Your task to perform on an android device: Open calendar and show me the second week of next month Image 0: 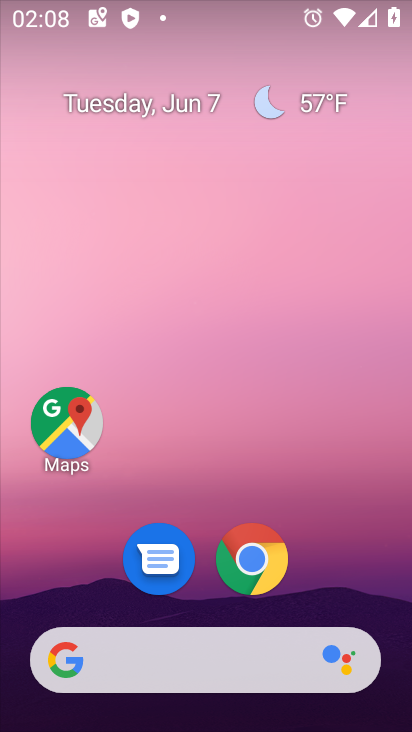
Step 0: drag from (352, 541) to (199, 78)
Your task to perform on an android device: Open calendar and show me the second week of next month Image 1: 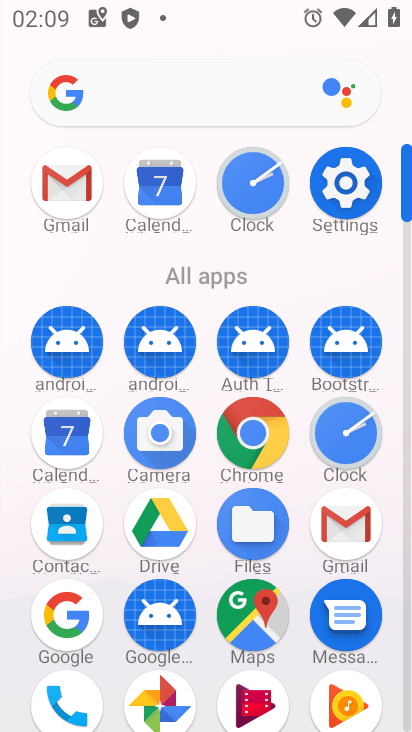
Step 1: click (69, 431)
Your task to perform on an android device: Open calendar and show me the second week of next month Image 2: 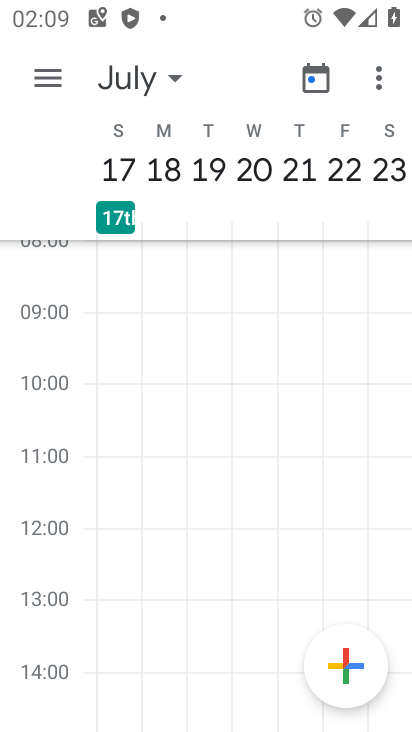
Step 2: click (321, 78)
Your task to perform on an android device: Open calendar and show me the second week of next month Image 3: 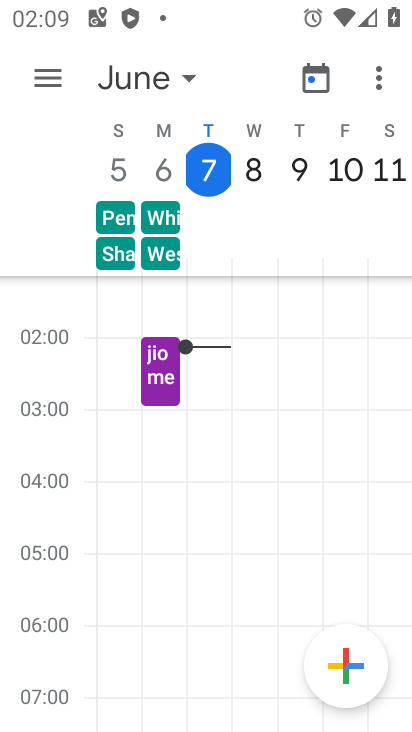
Step 3: click (190, 75)
Your task to perform on an android device: Open calendar and show me the second week of next month Image 4: 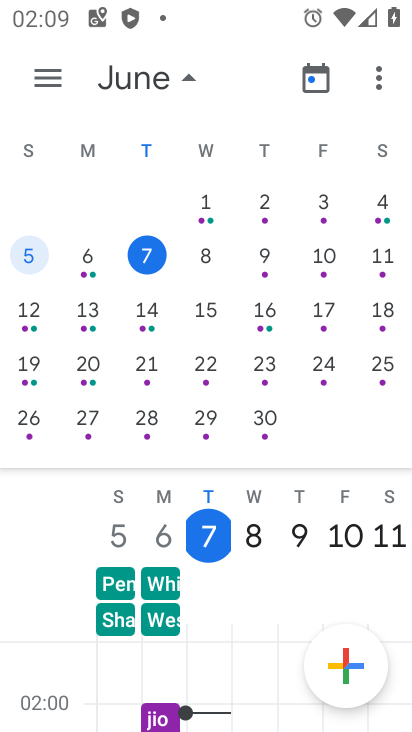
Step 4: drag from (358, 334) to (10, 324)
Your task to perform on an android device: Open calendar and show me the second week of next month Image 5: 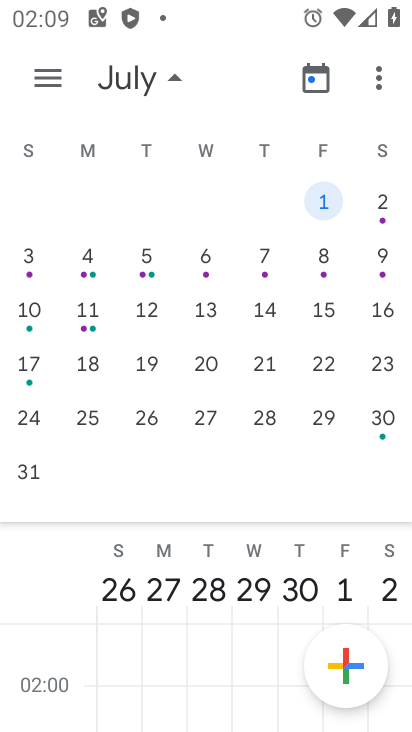
Step 5: click (90, 314)
Your task to perform on an android device: Open calendar and show me the second week of next month Image 6: 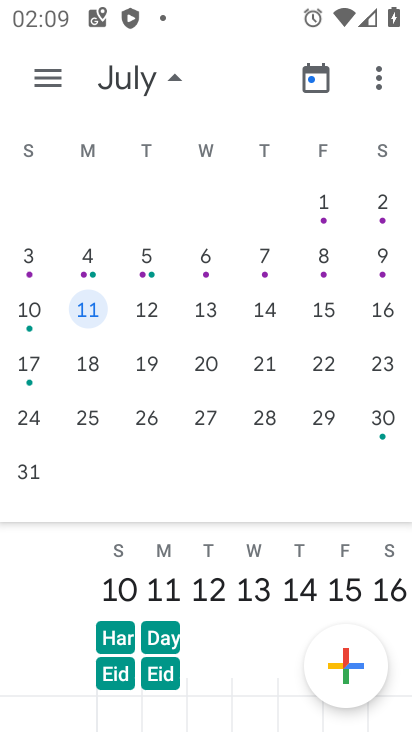
Step 6: click (32, 84)
Your task to perform on an android device: Open calendar and show me the second week of next month Image 7: 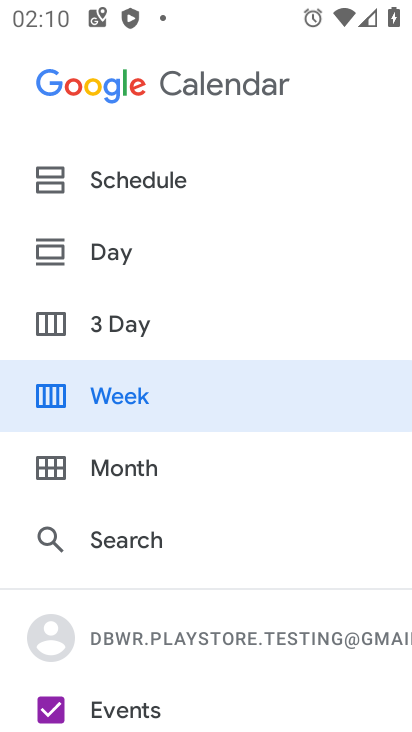
Step 7: click (134, 386)
Your task to perform on an android device: Open calendar and show me the second week of next month Image 8: 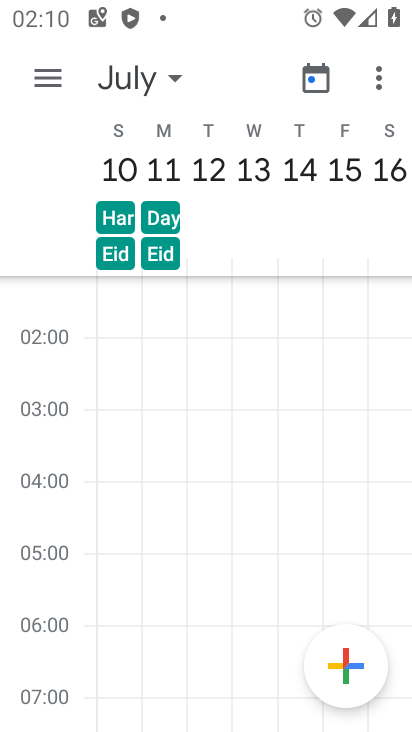
Step 8: task complete